Your task to perform on an android device: Go to Maps Image 0: 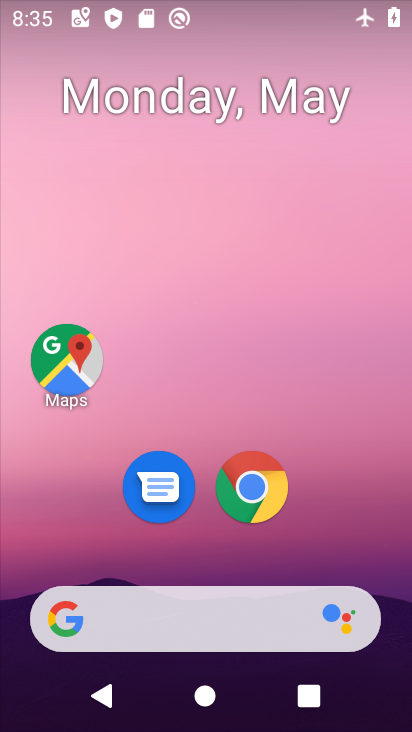
Step 0: drag from (380, 557) to (366, 237)
Your task to perform on an android device: Go to Maps Image 1: 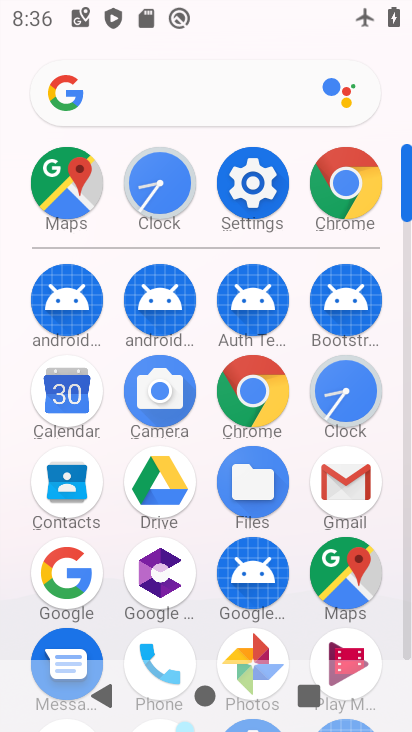
Step 1: click (366, 573)
Your task to perform on an android device: Go to Maps Image 2: 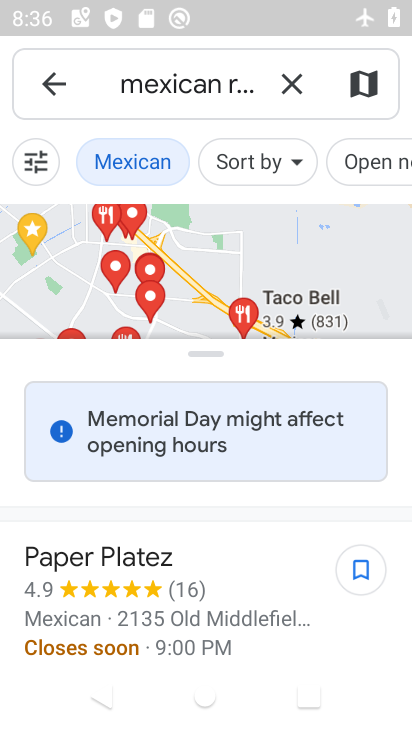
Step 2: task complete